Your task to perform on an android device: Open notification settings Image 0: 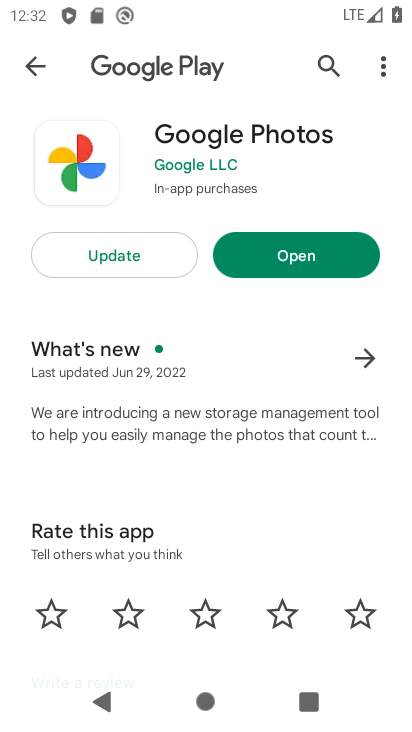
Step 0: press home button
Your task to perform on an android device: Open notification settings Image 1: 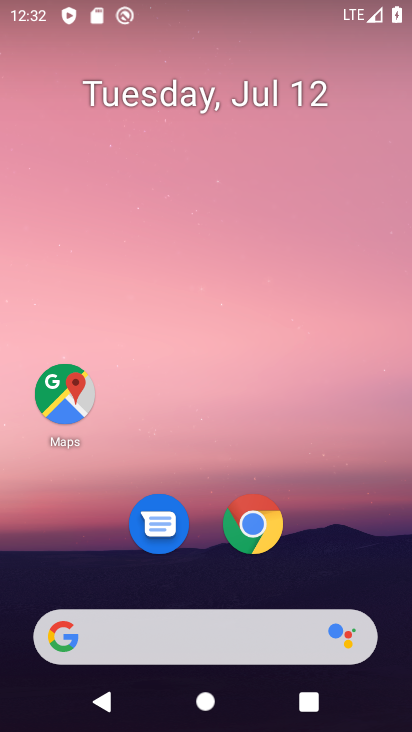
Step 1: drag from (330, 528) to (262, 50)
Your task to perform on an android device: Open notification settings Image 2: 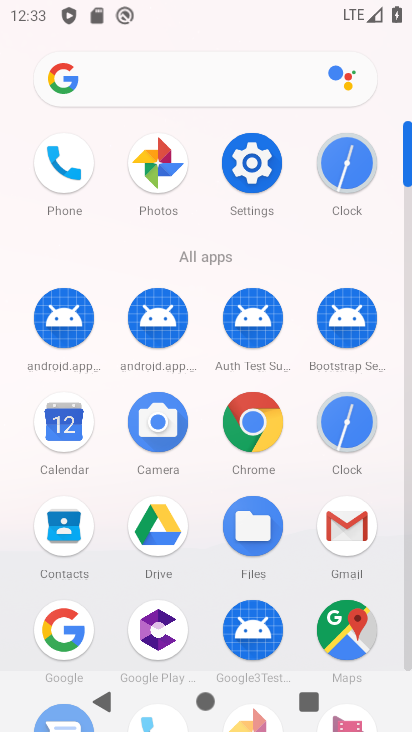
Step 2: click (256, 172)
Your task to perform on an android device: Open notification settings Image 3: 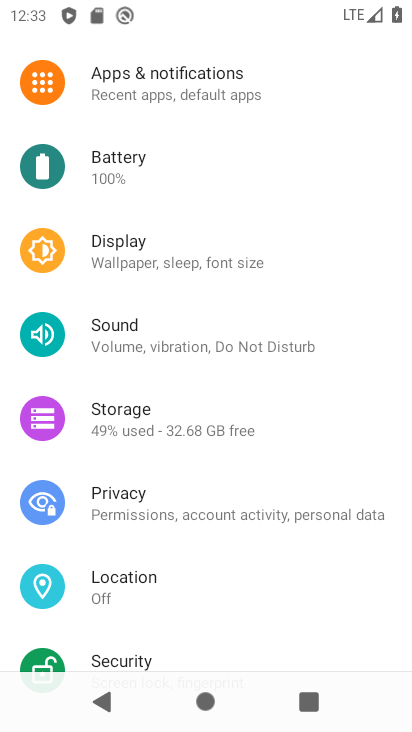
Step 3: click (236, 89)
Your task to perform on an android device: Open notification settings Image 4: 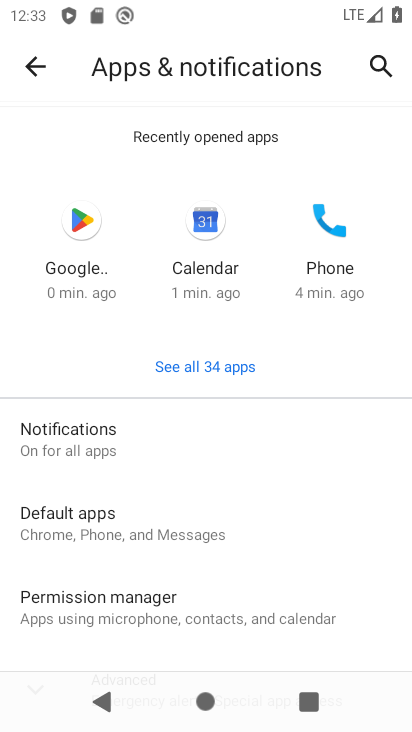
Step 4: click (101, 440)
Your task to perform on an android device: Open notification settings Image 5: 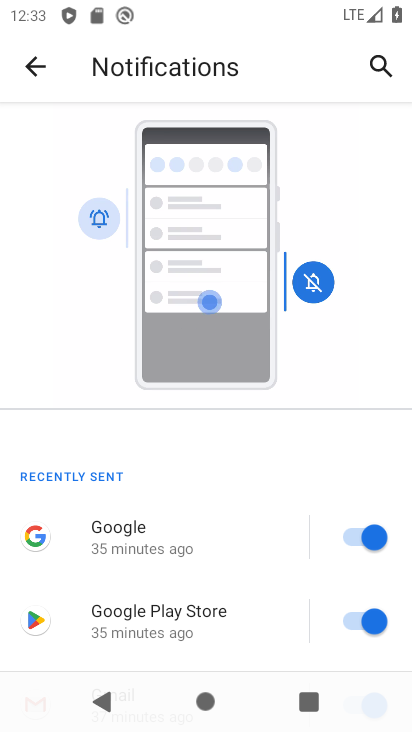
Step 5: task complete